Your task to perform on an android device: manage bookmarks in the chrome app Image 0: 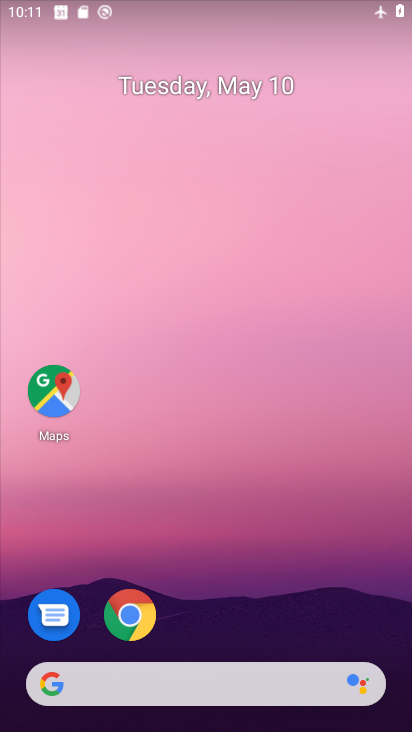
Step 0: drag from (225, 633) to (274, 146)
Your task to perform on an android device: manage bookmarks in the chrome app Image 1: 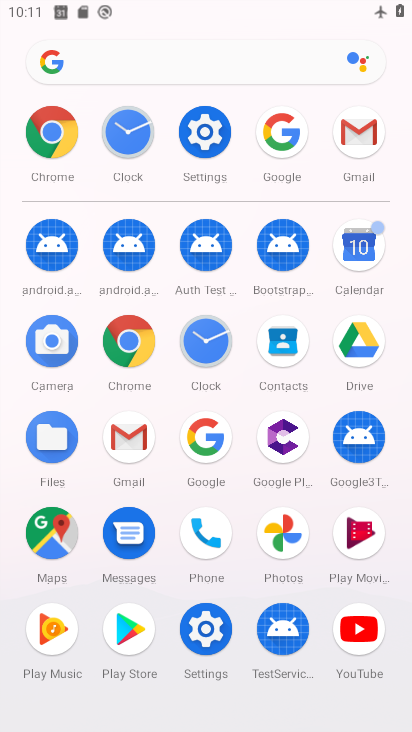
Step 1: click (122, 349)
Your task to perform on an android device: manage bookmarks in the chrome app Image 2: 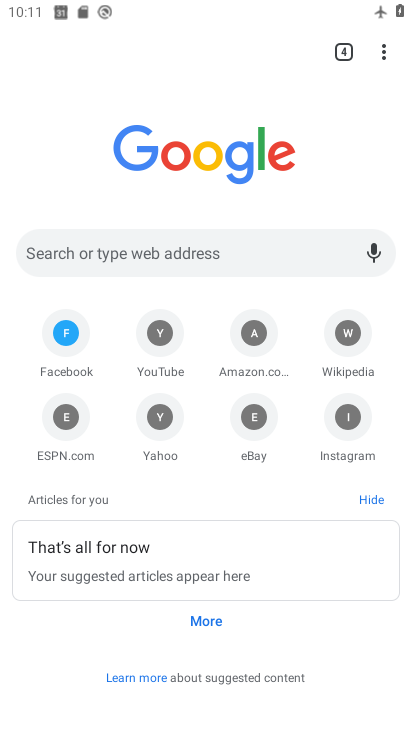
Step 2: drag from (387, 42) to (211, 202)
Your task to perform on an android device: manage bookmarks in the chrome app Image 3: 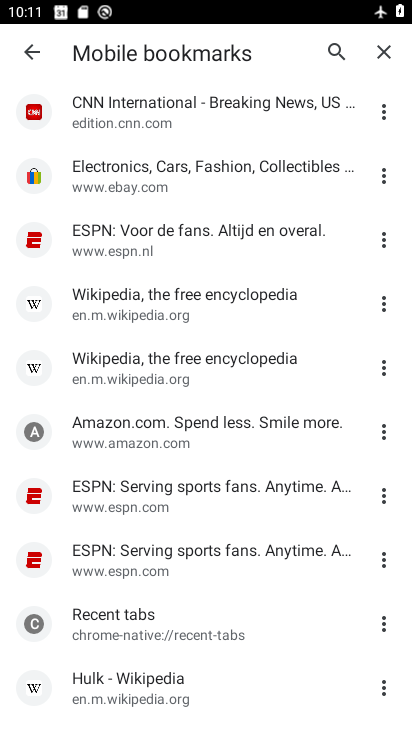
Step 3: click (386, 247)
Your task to perform on an android device: manage bookmarks in the chrome app Image 4: 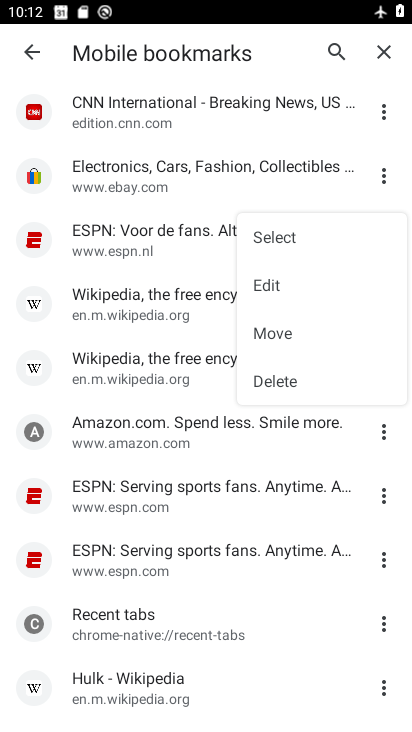
Step 4: click (271, 339)
Your task to perform on an android device: manage bookmarks in the chrome app Image 5: 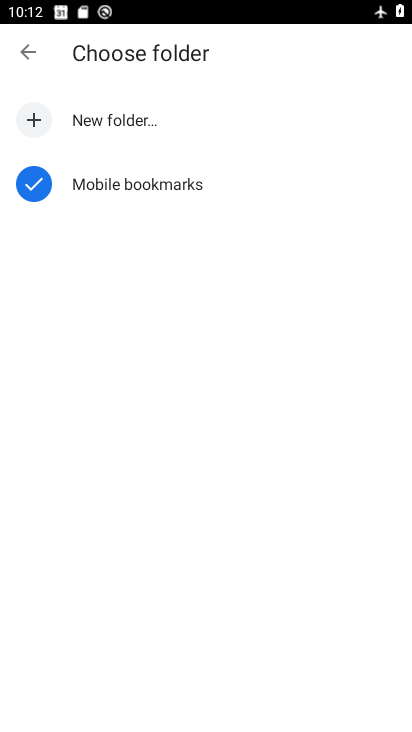
Step 5: click (112, 123)
Your task to perform on an android device: manage bookmarks in the chrome app Image 6: 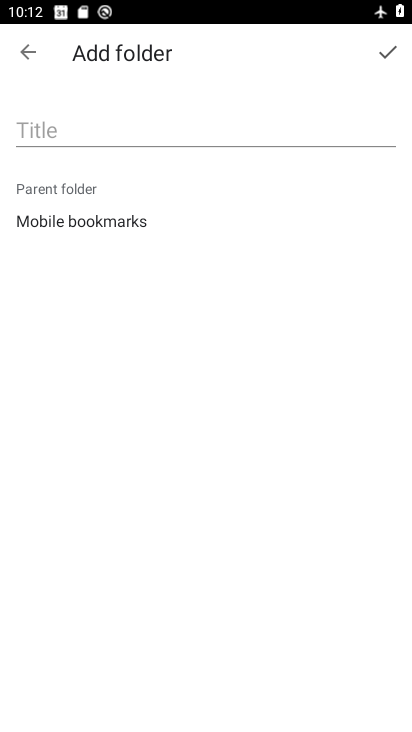
Step 6: click (42, 215)
Your task to perform on an android device: manage bookmarks in the chrome app Image 7: 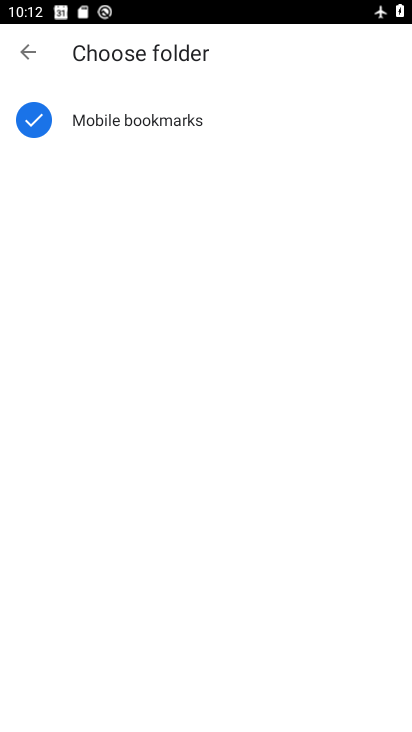
Step 7: task complete